Your task to perform on an android device: toggle pop-ups in chrome Image 0: 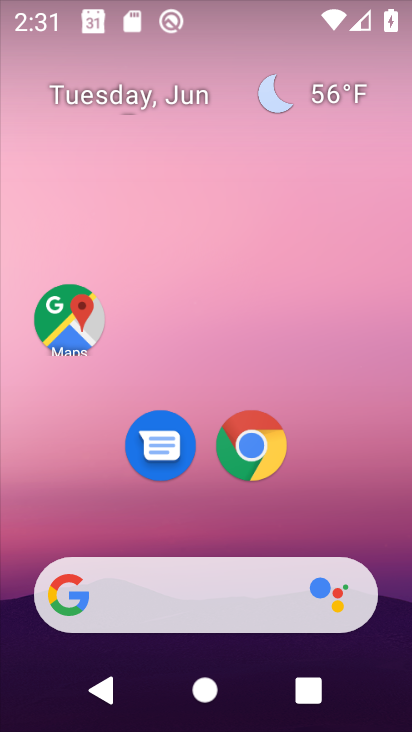
Step 0: click (263, 449)
Your task to perform on an android device: toggle pop-ups in chrome Image 1: 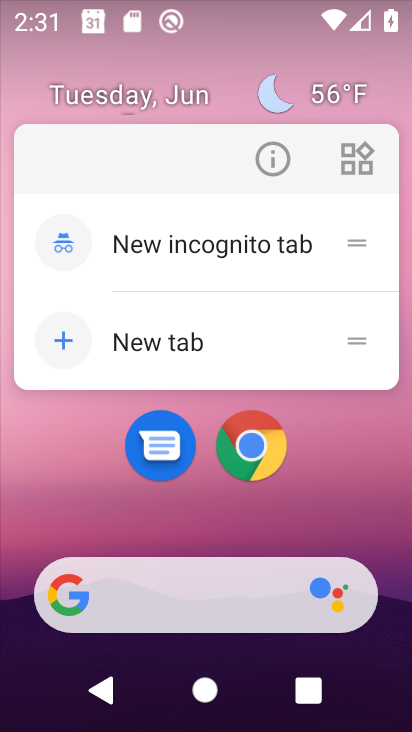
Step 1: click (264, 449)
Your task to perform on an android device: toggle pop-ups in chrome Image 2: 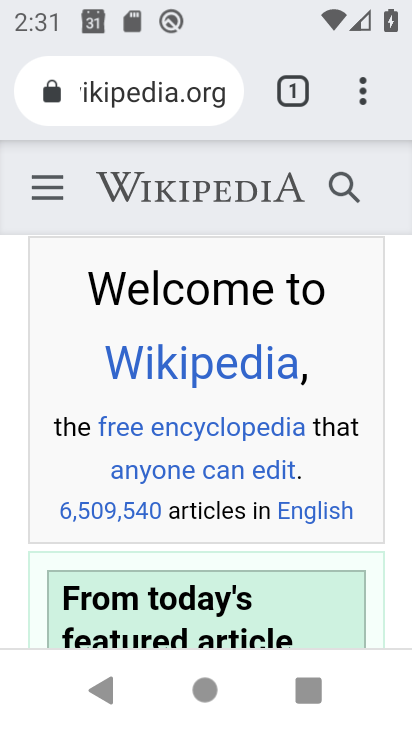
Step 2: click (367, 73)
Your task to perform on an android device: toggle pop-ups in chrome Image 3: 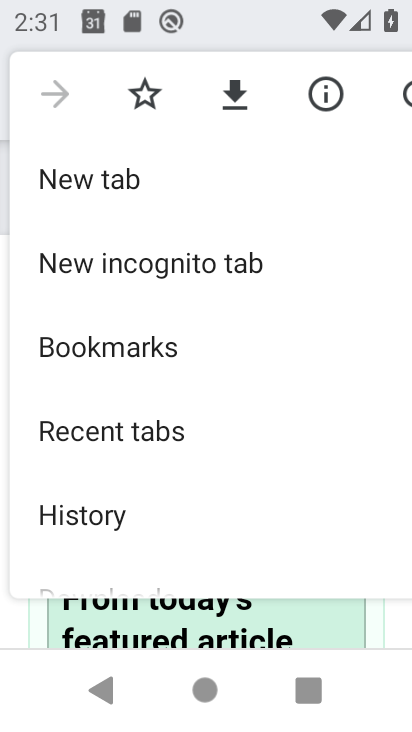
Step 3: drag from (285, 487) to (408, 381)
Your task to perform on an android device: toggle pop-ups in chrome Image 4: 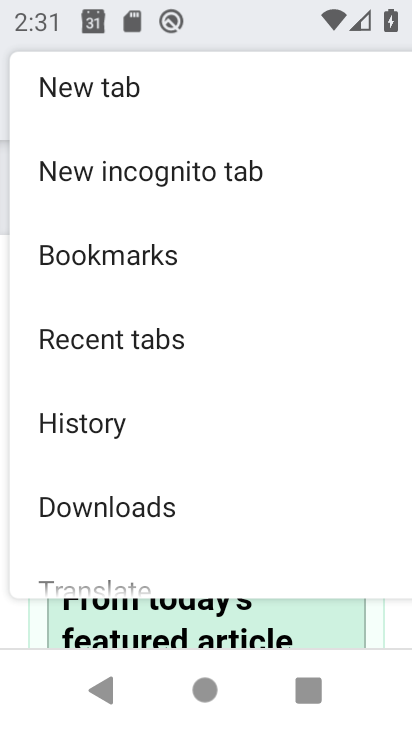
Step 4: drag from (289, 524) to (376, 24)
Your task to perform on an android device: toggle pop-ups in chrome Image 5: 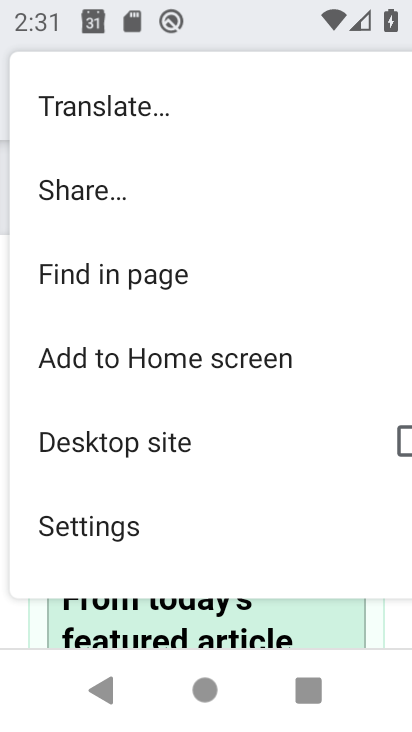
Step 5: click (192, 538)
Your task to perform on an android device: toggle pop-ups in chrome Image 6: 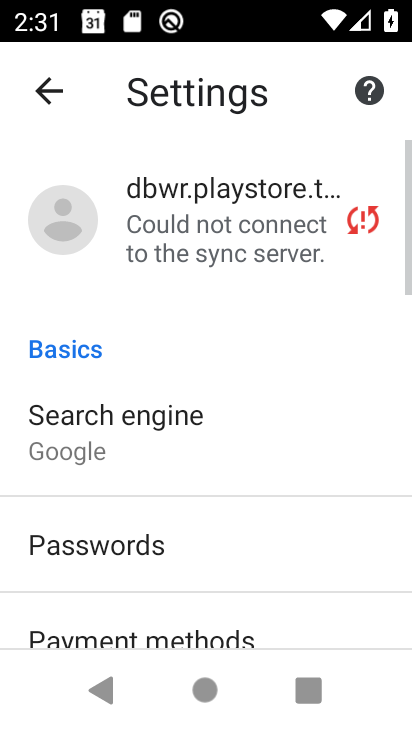
Step 6: drag from (278, 594) to (315, 115)
Your task to perform on an android device: toggle pop-ups in chrome Image 7: 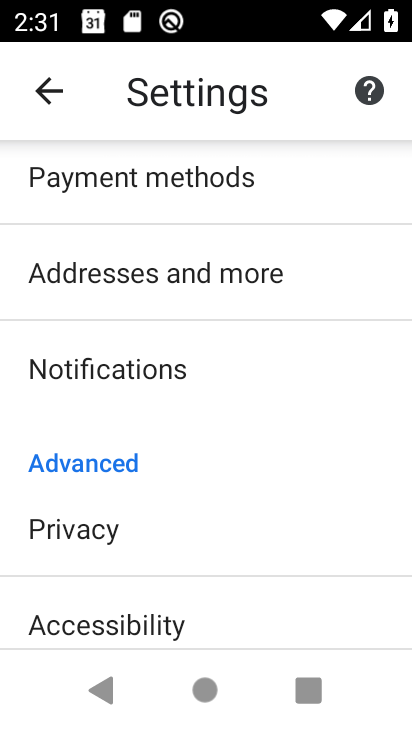
Step 7: drag from (237, 590) to (333, 44)
Your task to perform on an android device: toggle pop-ups in chrome Image 8: 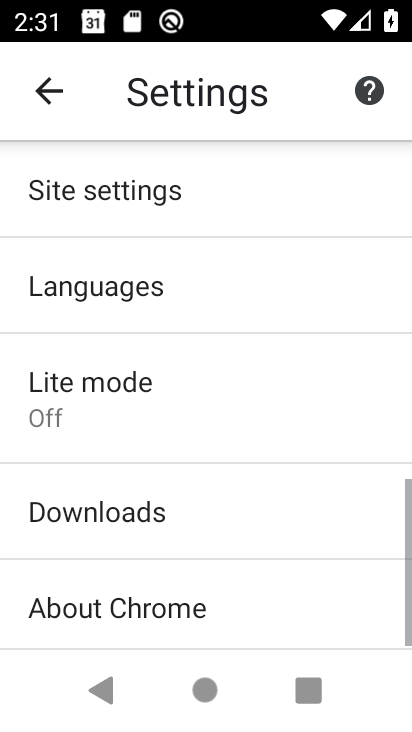
Step 8: drag from (192, 602) to (216, 171)
Your task to perform on an android device: toggle pop-ups in chrome Image 9: 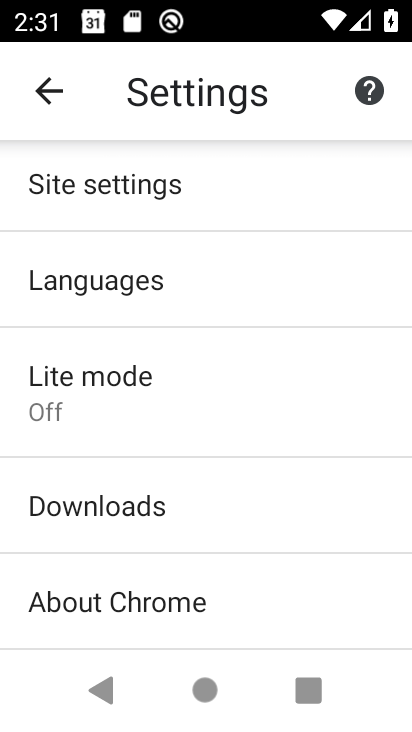
Step 9: click (143, 171)
Your task to perform on an android device: toggle pop-ups in chrome Image 10: 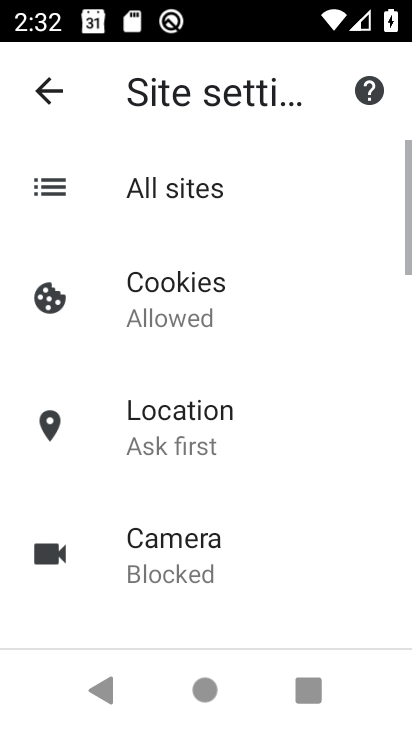
Step 10: drag from (279, 588) to (395, 11)
Your task to perform on an android device: toggle pop-ups in chrome Image 11: 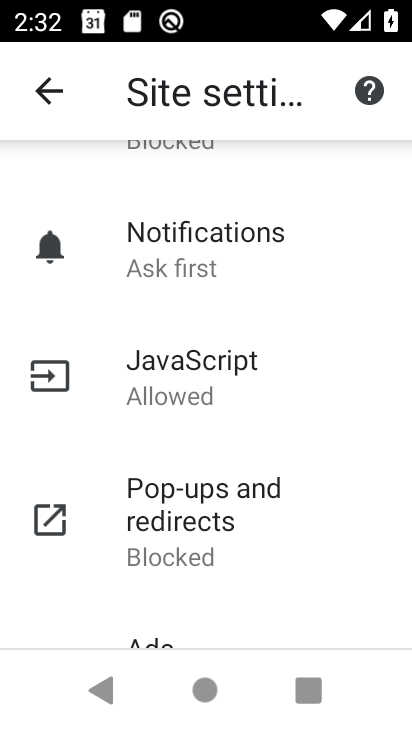
Step 11: click (248, 505)
Your task to perform on an android device: toggle pop-ups in chrome Image 12: 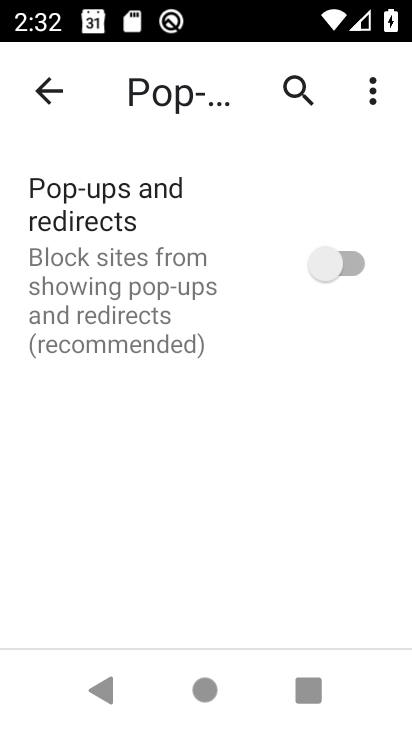
Step 12: click (355, 260)
Your task to perform on an android device: toggle pop-ups in chrome Image 13: 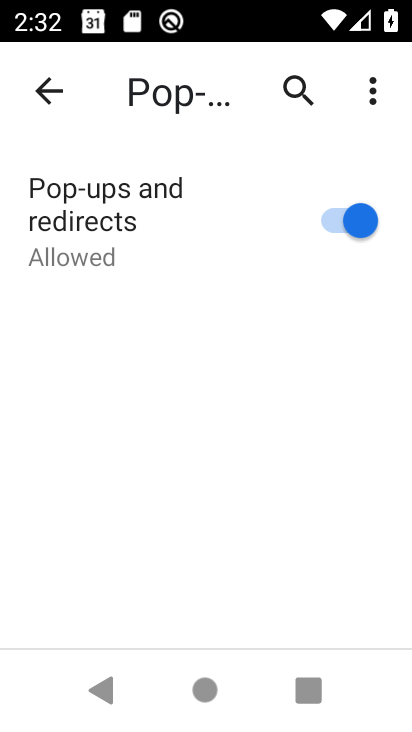
Step 13: task complete